Your task to perform on an android device: allow cookies in the chrome app Image 0: 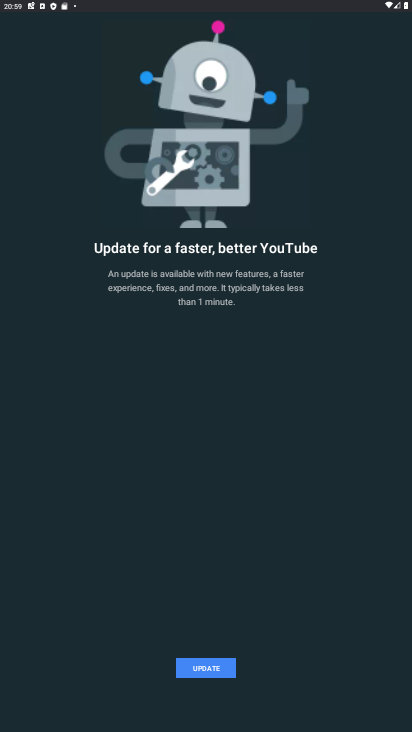
Step 0: press home button
Your task to perform on an android device: allow cookies in the chrome app Image 1: 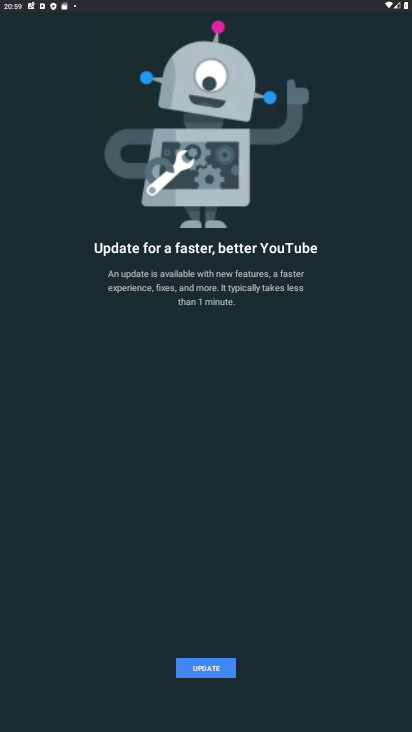
Step 1: press home button
Your task to perform on an android device: allow cookies in the chrome app Image 2: 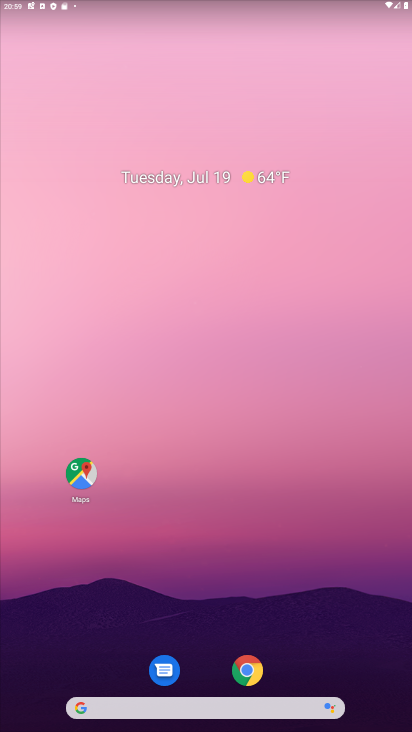
Step 2: click (252, 668)
Your task to perform on an android device: allow cookies in the chrome app Image 3: 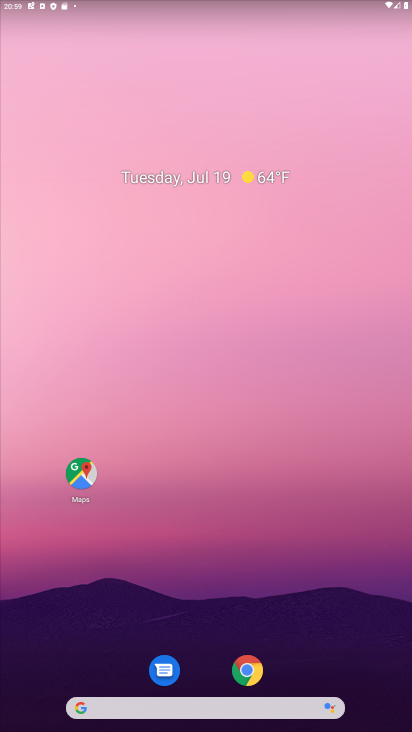
Step 3: click (252, 668)
Your task to perform on an android device: allow cookies in the chrome app Image 4: 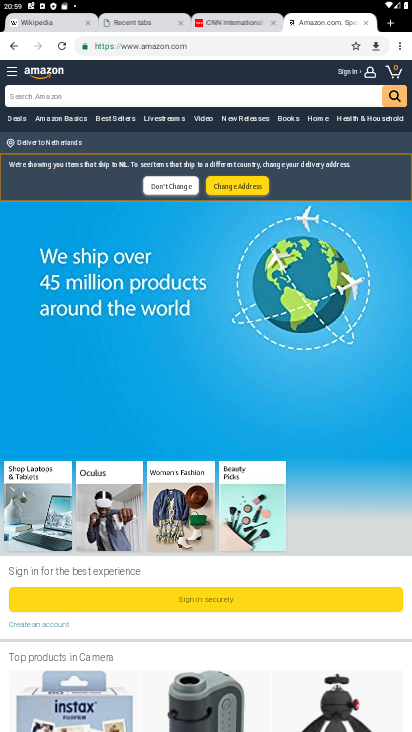
Step 4: click (399, 44)
Your task to perform on an android device: allow cookies in the chrome app Image 5: 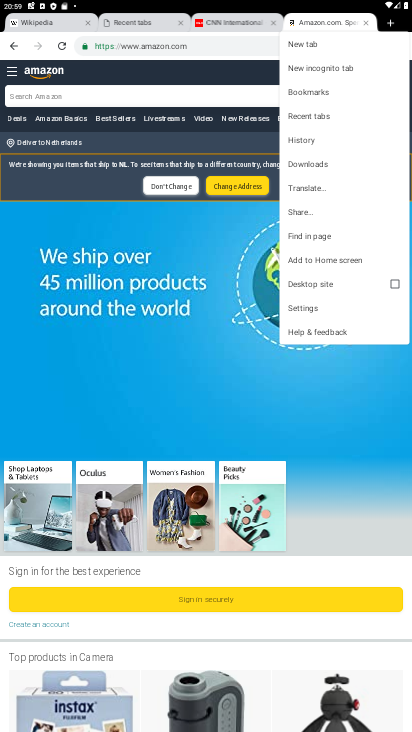
Step 5: click (299, 313)
Your task to perform on an android device: allow cookies in the chrome app Image 6: 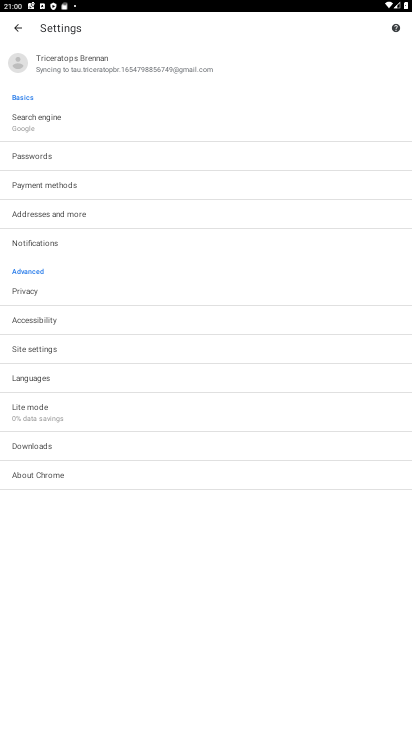
Step 6: click (245, 353)
Your task to perform on an android device: allow cookies in the chrome app Image 7: 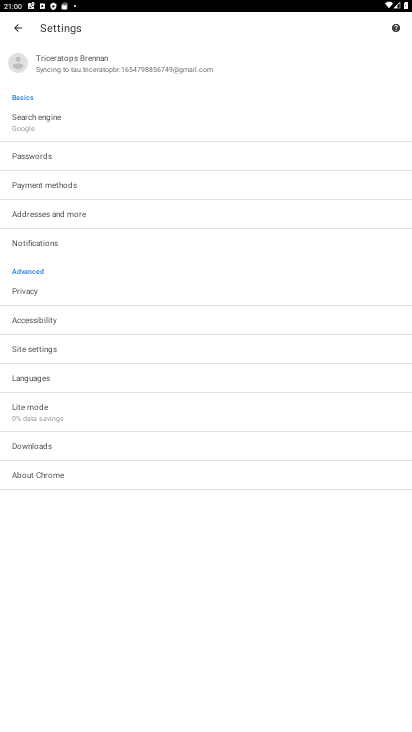
Step 7: click (245, 353)
Your task to perform on an android device: allow cookies in the chrome app Image 8: 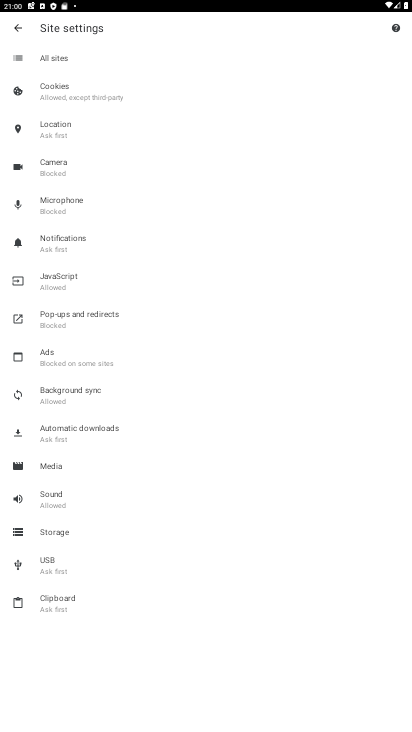
Step 8: click (122, 95)
Your task to perform on an android device: allow cookies in the chrome app Image 9: 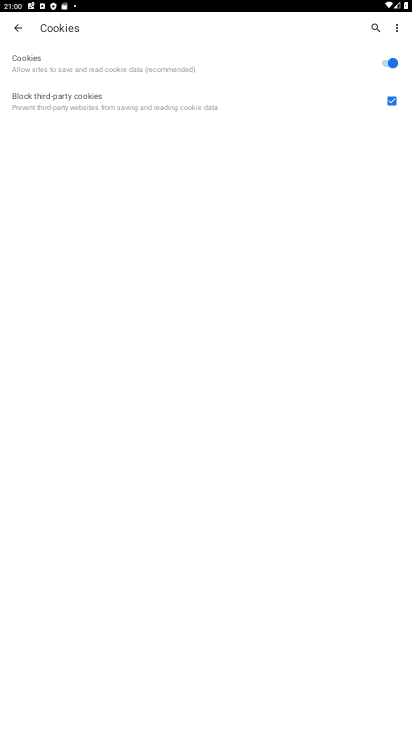
Step 9: task complete